Your task to perform on an android device: What's on my calendar tomorrow? Image 0: 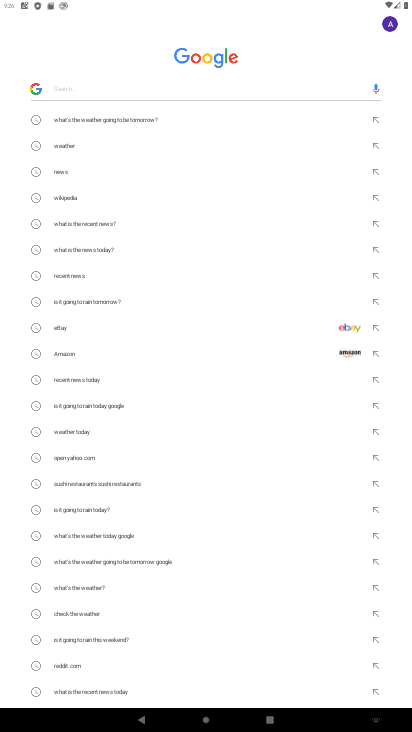
Step 0: press home button
Your task to perform on an android device: What's on my calendar tomorrow? Image 1: 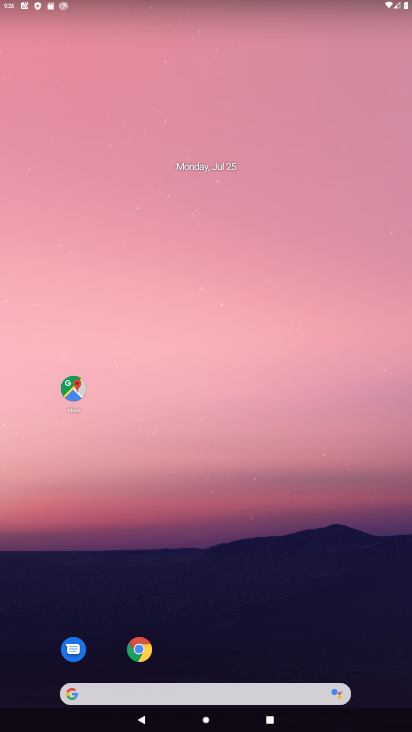
Step 1: drag from (258, 657) to (225, 73)
Your task to perform on an android device: What's on my calendar tomorrow? Image 2: 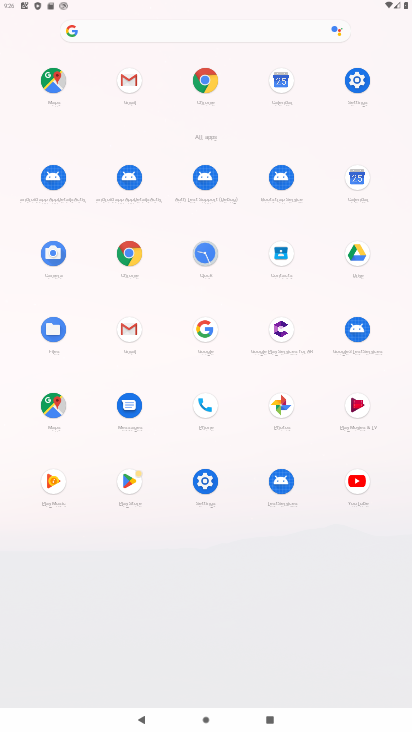
Step 2: click (359, 178)
Your task to perform on an android device: What's on my calendar tomorrow? Image 3: 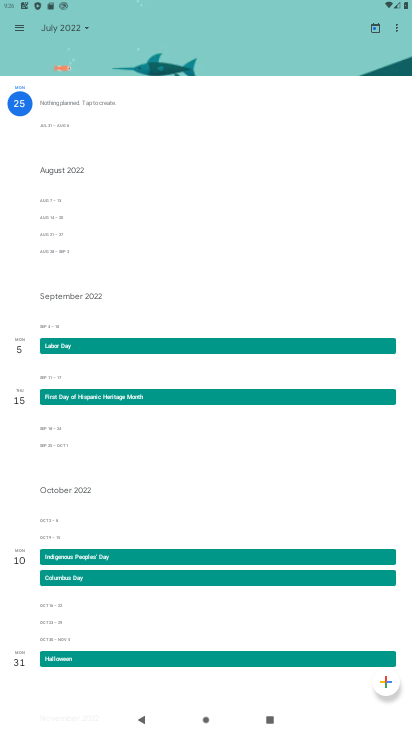
Step 3: click (50, 17)
Your task to perform on an android device: What's on my calendar tomorrow? Image 4: 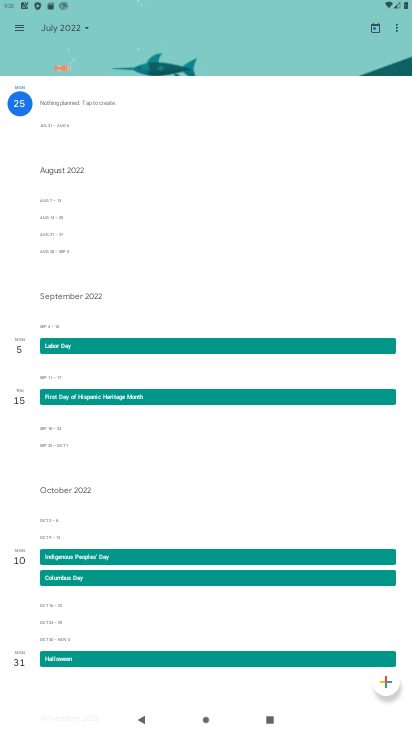
Step 4: click (59, 30)
Your task to perform on an android device: What's on my calendar tomorrow? Image 5: 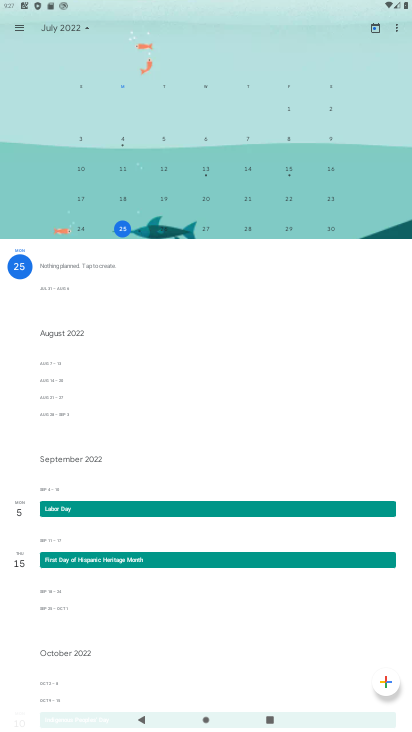
Step 5: task complete